Your task to perform on an android device: Open notification settings Image 0: 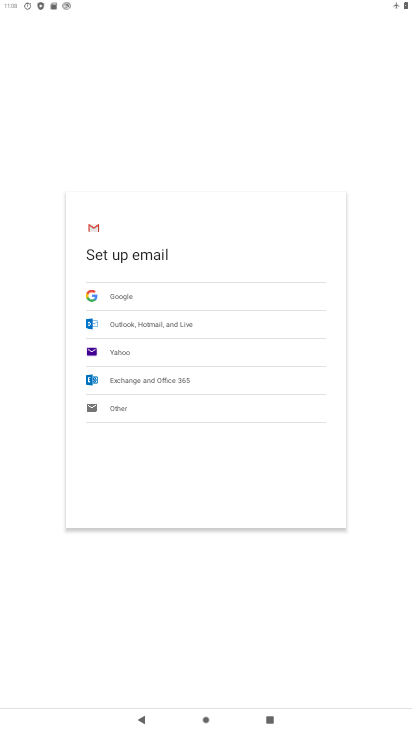
Step 0: press home button
Your task to perform on an android device: Open notification settings Image 1: 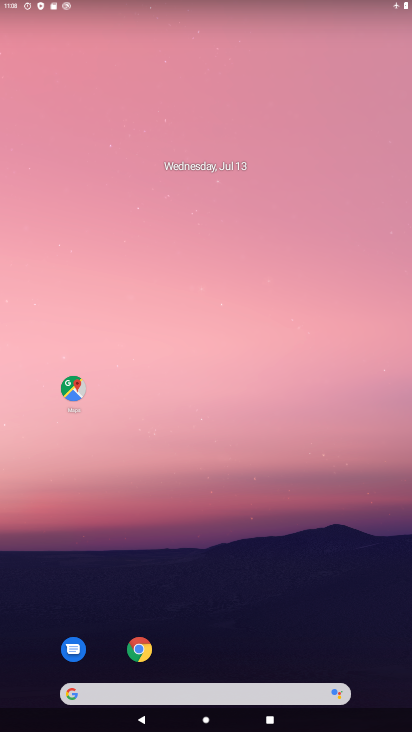
Step 1: drag from (180, 694) to (275, 169)
Your task to perform on an android device: Open notification settings Image 2: 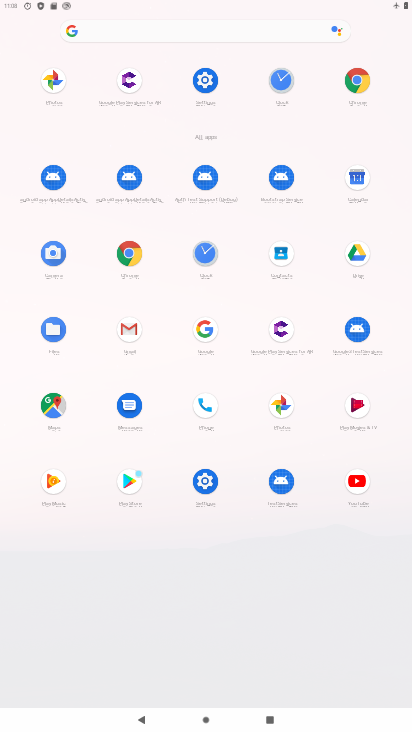
Step 2: click (204, 80)
Your task to perform on an android device: Open notification settings Image 3: 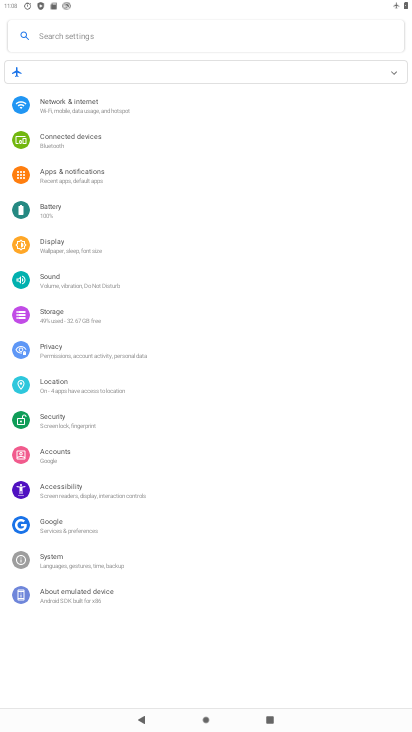
Step 3: click (82, 178)
Your task to perform on an android device: Open notification settings Image 4: 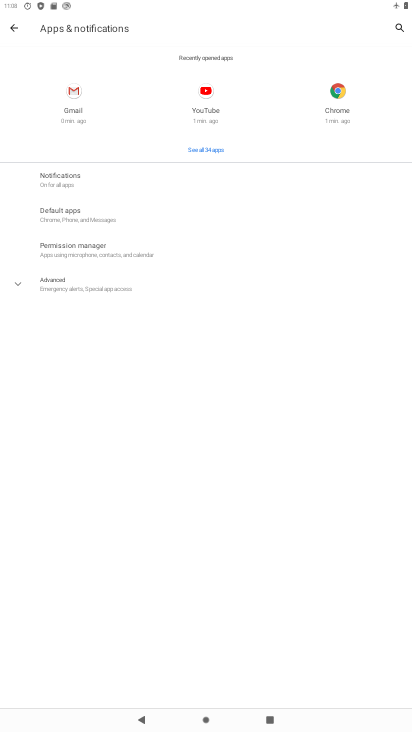
Step 4: click (67, 185)
Your task to perform on an android device: Open notification settings Image 5: 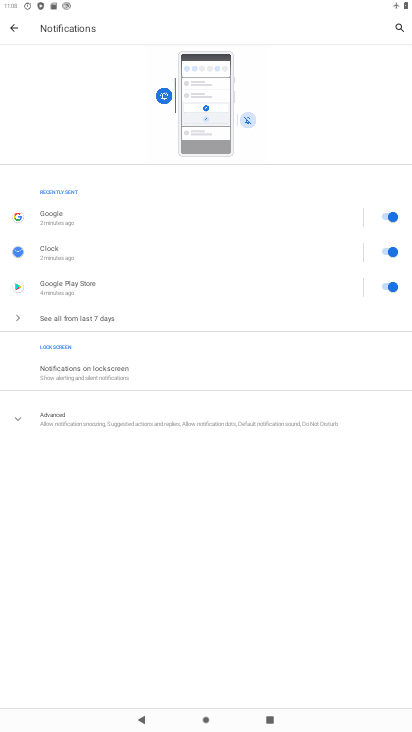
Step 5: task complete